Your task to perform on an android device: Open ESPN.com Image 0: 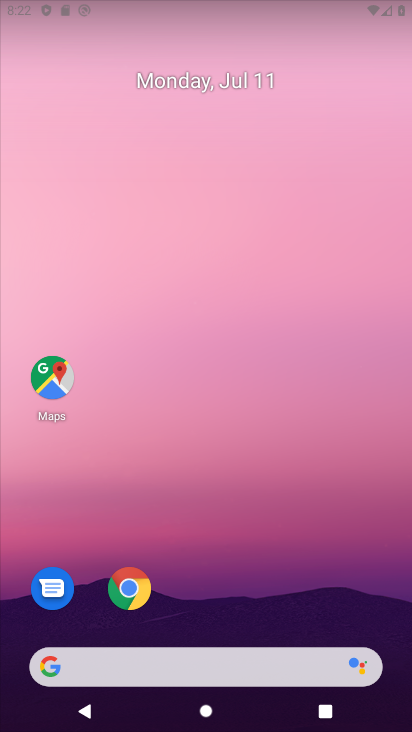
Step 0: click (140, 674)
Your task to perform on an android device: Open ESPN.com Image 1: 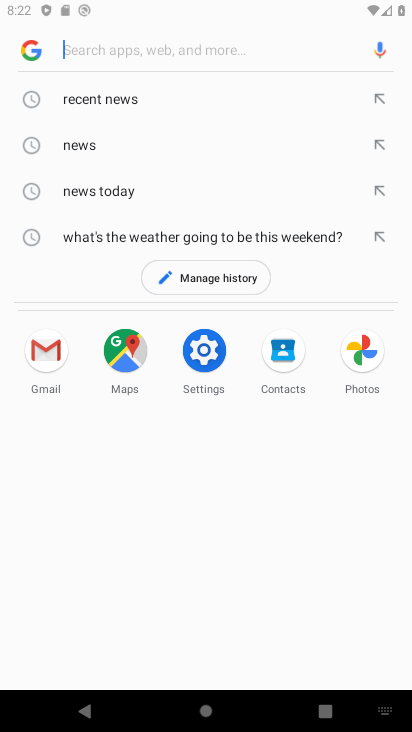
Step 1: type "espn.com"
Your task to perform on an android device: Open ESPN.com Image 2: 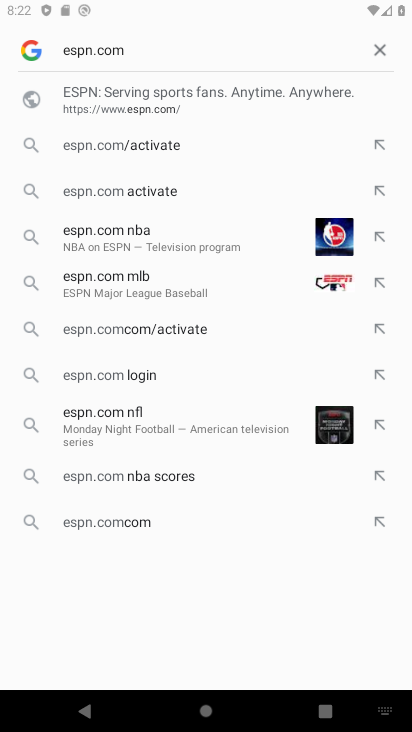
Step 2: click (130, 102)
Your task to perform on an android device: Open ESPN.com Image 3: 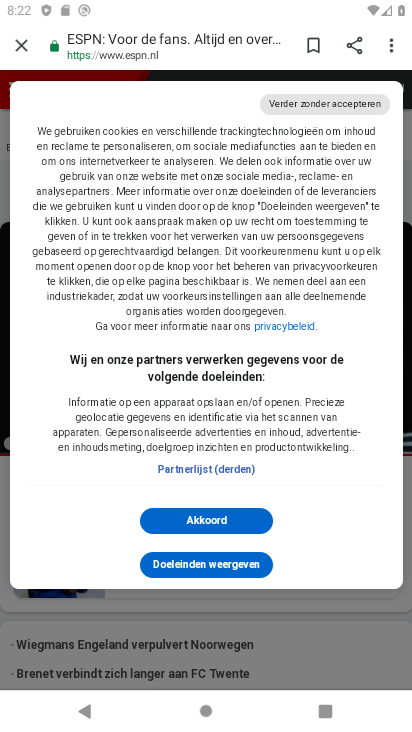
Step 3: task complete